Your task to perform on an android device: Show me recent news Image 0: 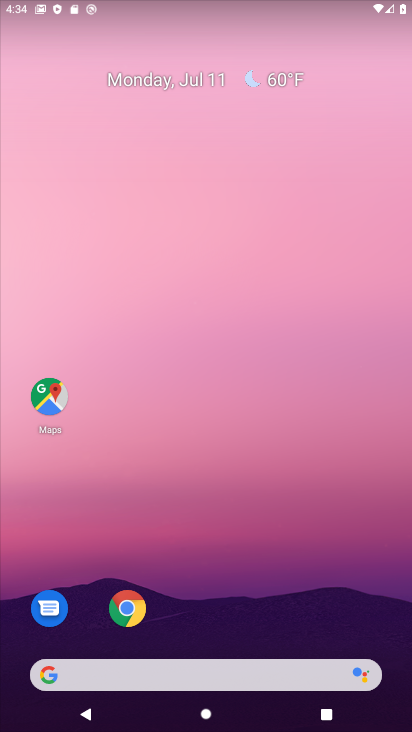
Step 0: drag from (248, 521) to (305, 0)
Your task to perform on an android device: Show me recent news Image 1: 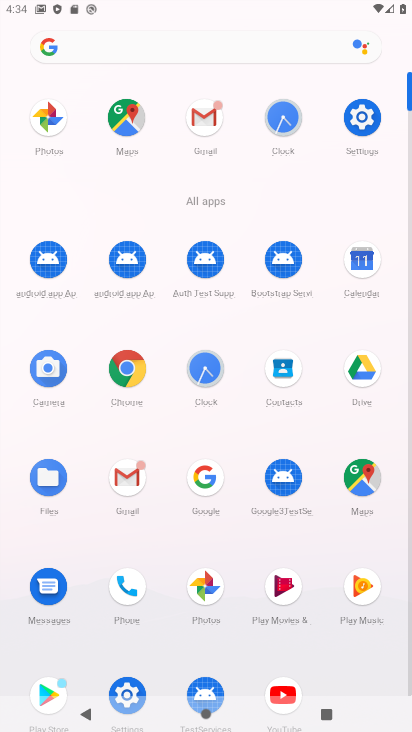
Step 1: click (136, 373)
Your task to perform on an android device: Show me recent news Image 2: 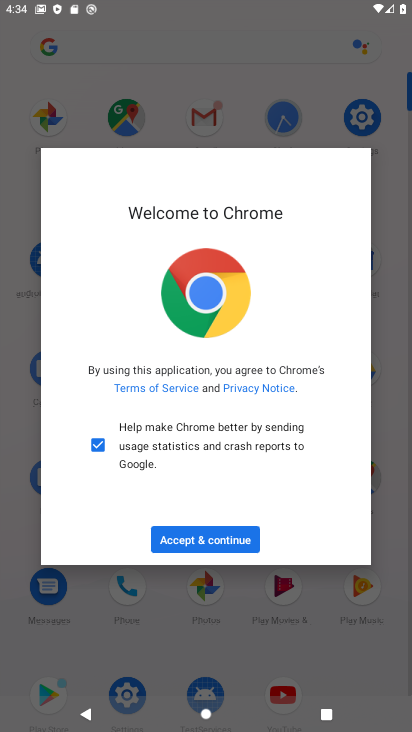
Step 2: click (176, 534)
Your task to perform on an android device: Show me recent news Image 3: 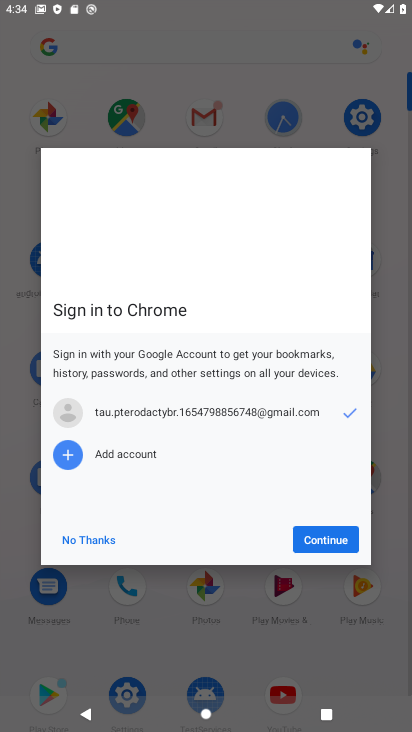
Step 3: click (72, 539)
Your task to perform on an android device: Show me recent news Image 4: 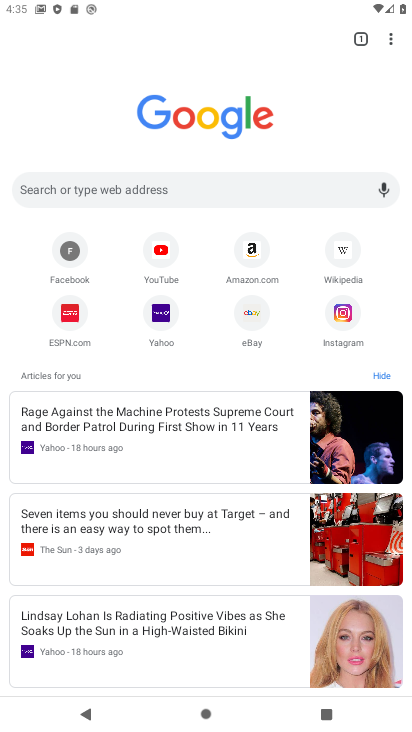
Step 4: task complete